Your task to perform on an android device: Open sound settings Image 0: 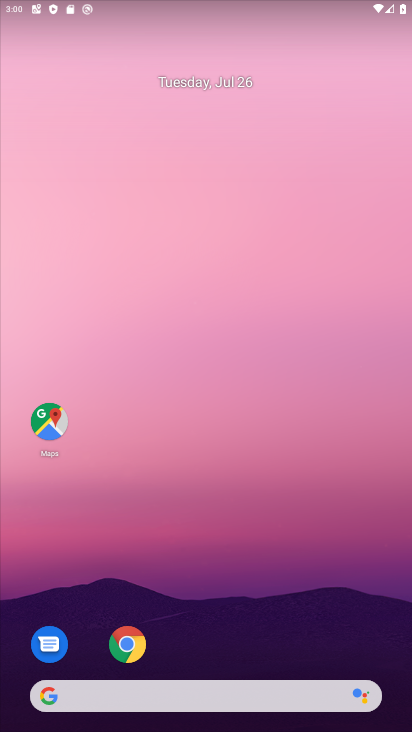
Step 0: drag from (165, 652) to (164, 102)
Your task to perform on an android device: Open sound settings Image 1: 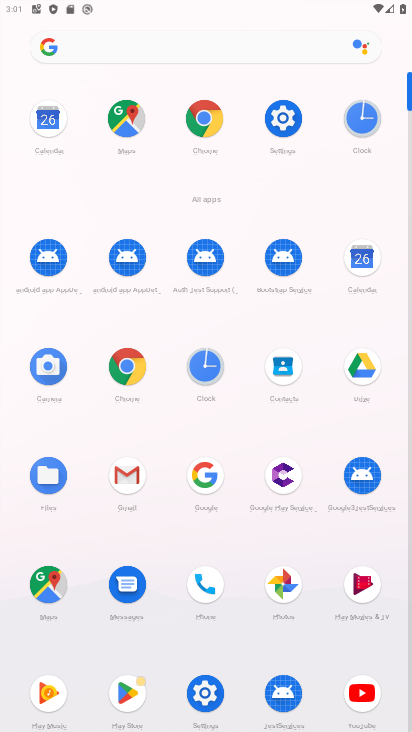
Step 1: click (280, 114)
Your task to perform on an android device: Open sound settings Image 2: 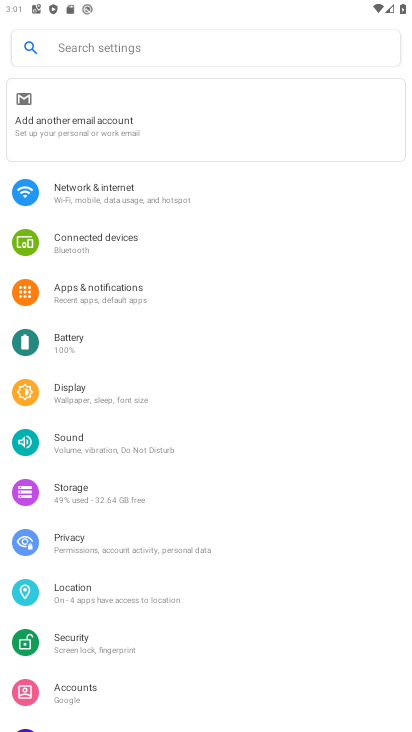
Step 2: click (70, 435)
Your task to perform on an android device: Open sound settings Image 3: 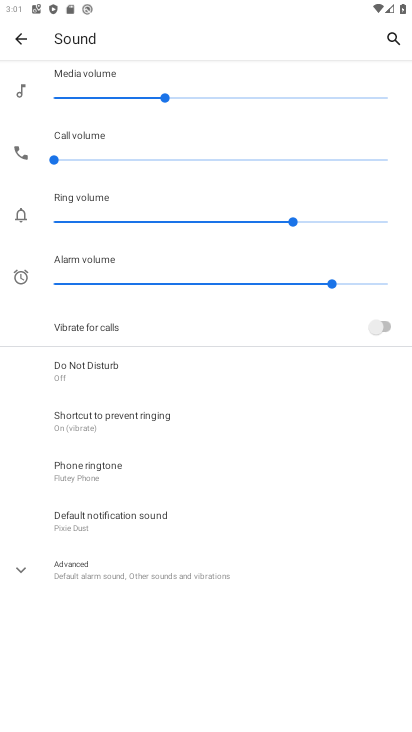
Step 3: click (91, 559)
Your task to perform on an android device: Open sound settings Image 4: 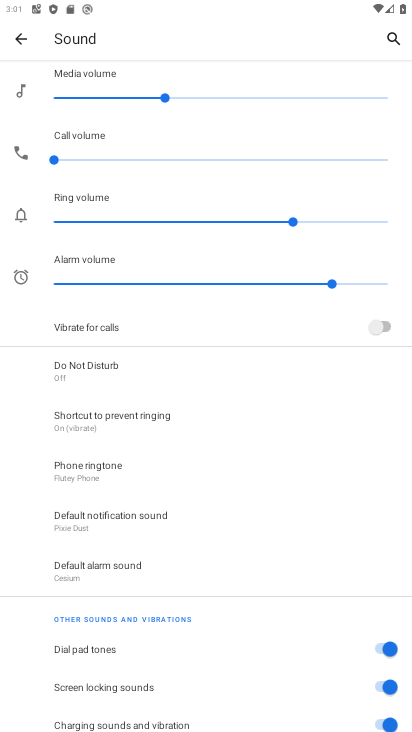
Step 4: task complete